Your task to perform on an android device: Find coffee shops on Maps Image 0: 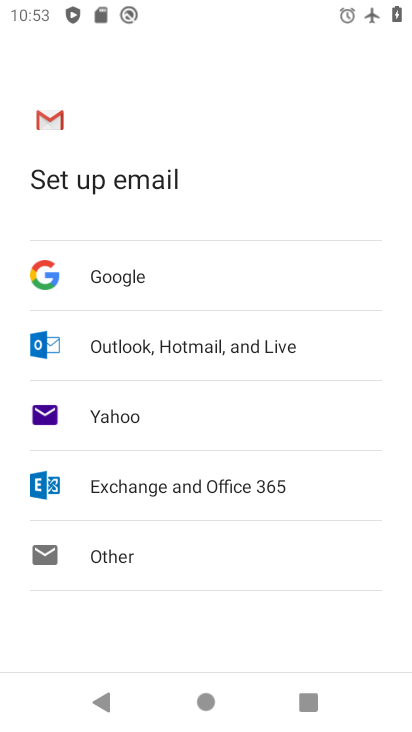
Step 0: press home button
Your task to perform on an android device: Find coffee shops on Maps Image 1: 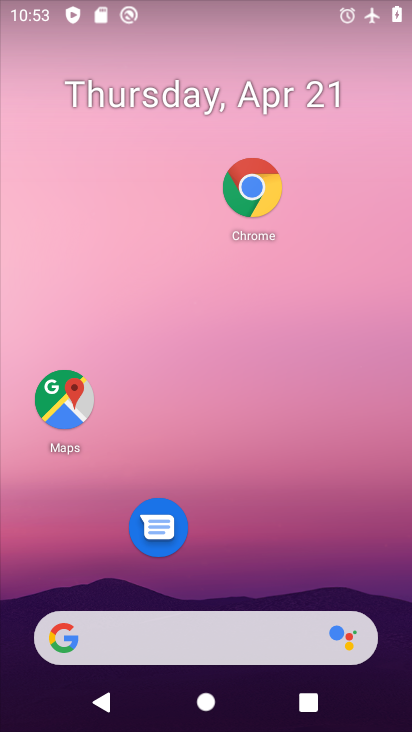
Step 1: click (85, 411)
Your task to perform on an android device: Find coffee shops on Maps Image 2: 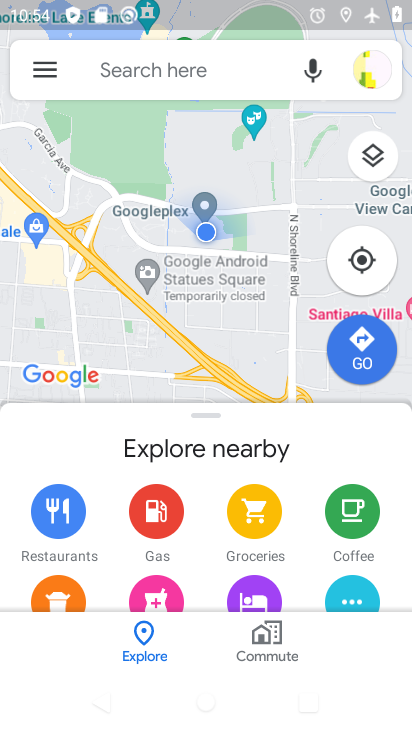
Step 2: press home button
Your task to perform on an android device: Find coffee shops on Maps Image 3: 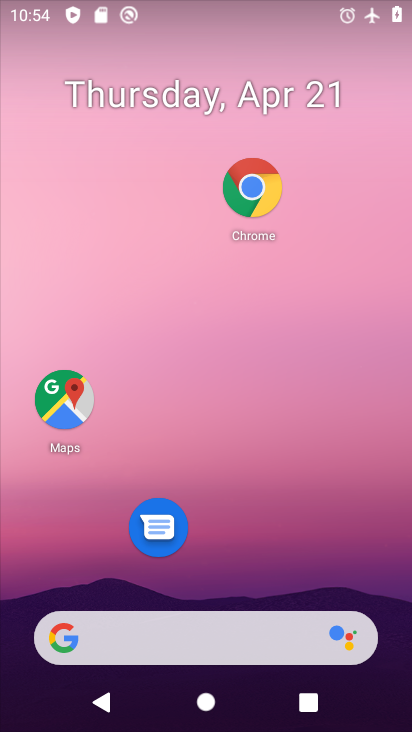
Step 3: drag from (290, 623) to (309, 248)
Your task to perform on an android device: Find coffee shops on Maps Image 4: 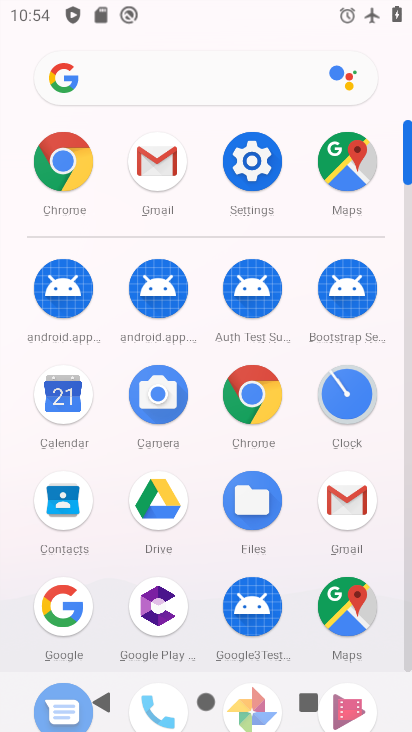
Step 4: click (355, 588)
Your task to perform on an android device: Find coffee shops on Maps Image 5: 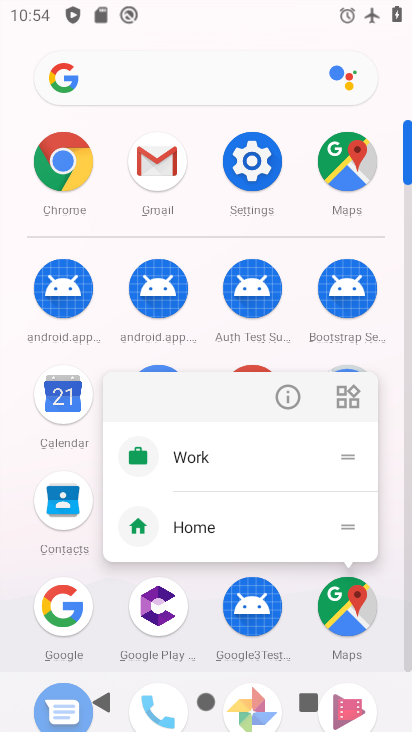
Step 5: click (347, 610)
Your task to perform on an android device: Find coffee shops on Maps Image 6: 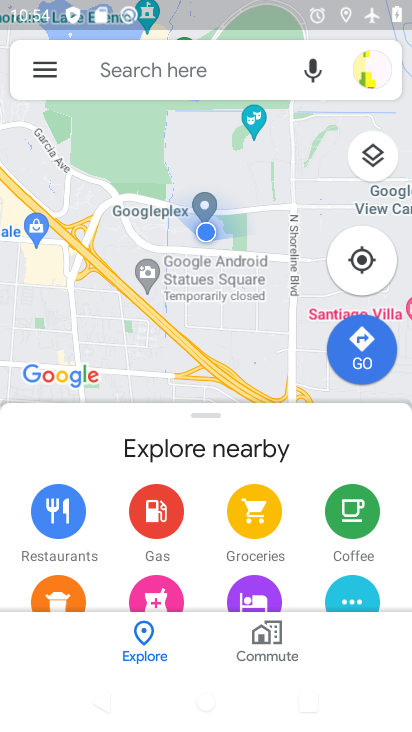
Step 6: click (204, 77)
Your task to perform on an android device: Find coffee shops on Maps Image 7: 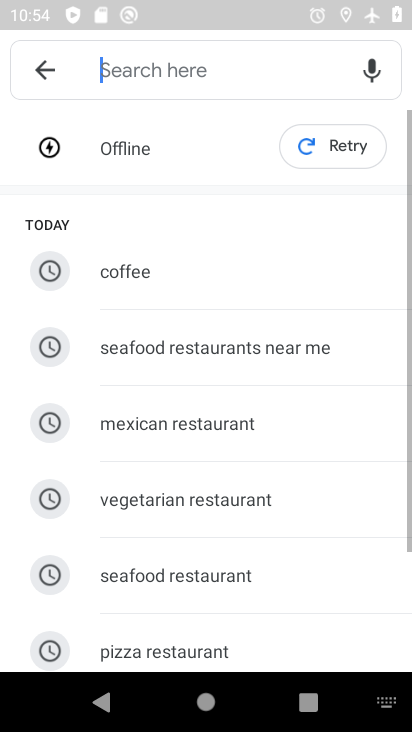
Step 7: click (166, 284)
Your task to perform on an android device: Find coffee shops on Maps Image 8: 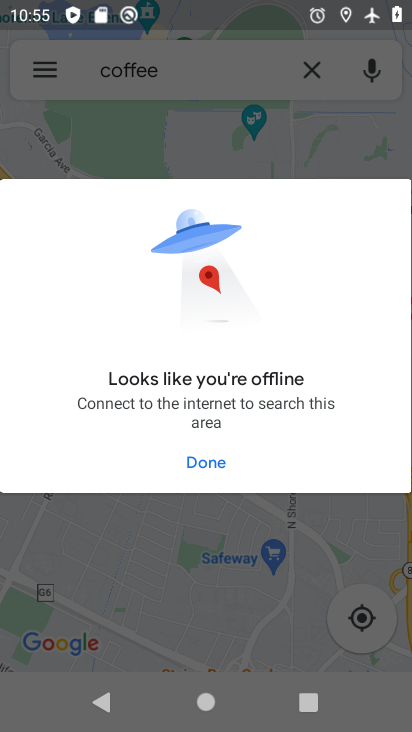
Step 8: task complete